Your task to perform on an android device: Go to privacy settings Image 0: 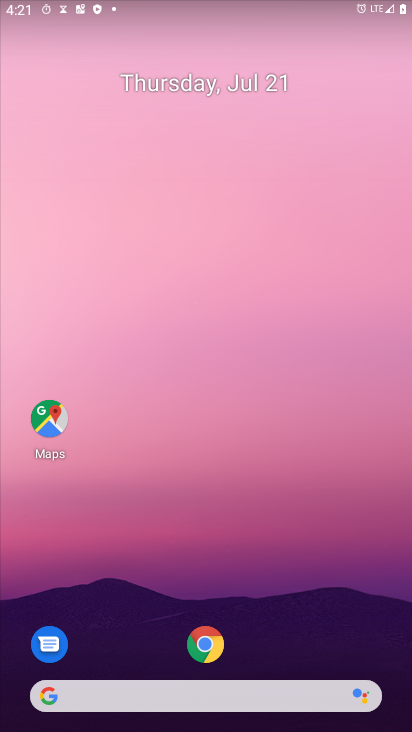
Step 0: press home button
Your task to perform on an android device: Go to privacy settings Image 1: 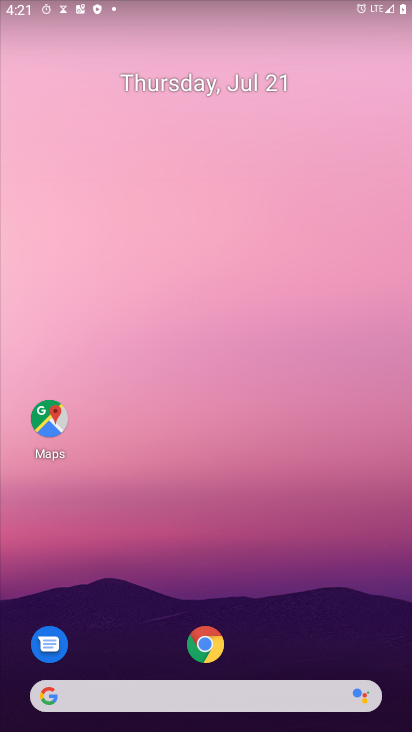
Step 1: drag from (315, 601) to (262, 0)
Your task to perform on an android device: Go to privacy settings Image 2: 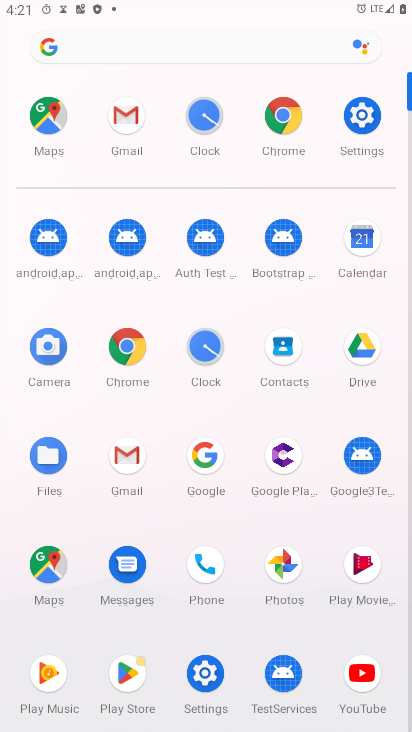
Step 2: click (349, 113)
Your task to perform on an android device: Go to privacy settings Image 3: 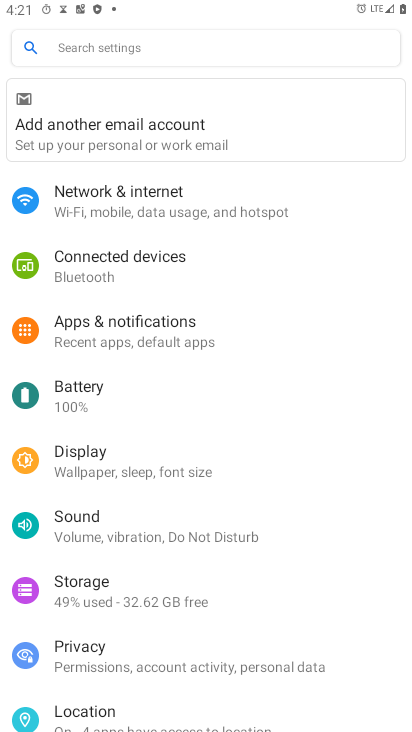
Step 3: click (94, 656)
Your task to perform on an android device: Go to privacy settings Image 4: 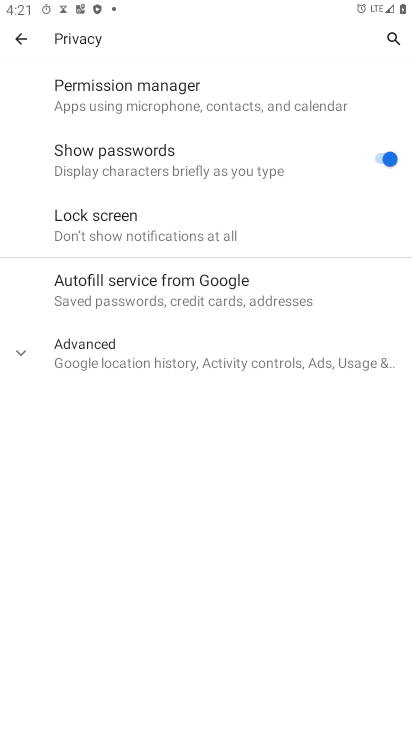
Step 4: task complete